Your task to perform on an android device: turn off javascript in the chrome app Image 0: 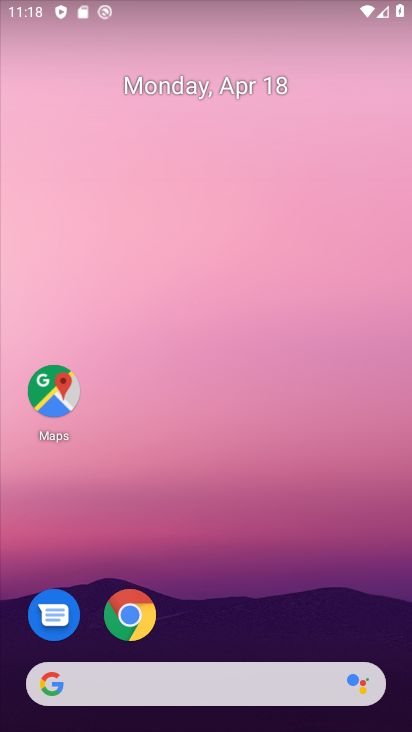
Step 0: click (138, 616)
Your task to perform on an android device: turn off javascript in the chrome app Image 1: 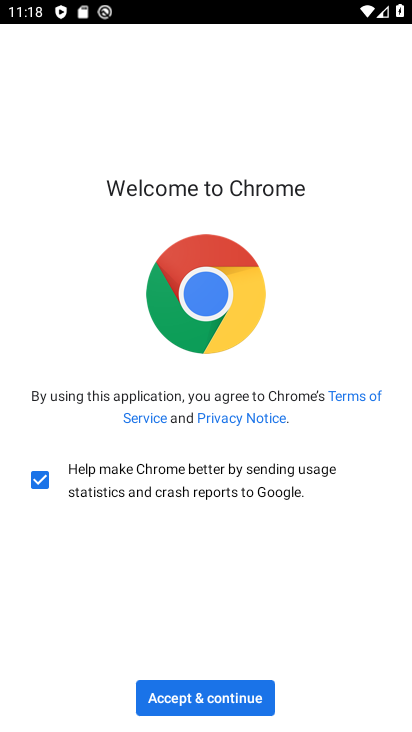
Step 1: click (193, 693)
Your task to perform on an android device: turn off javascript in the chrome app Image 2: 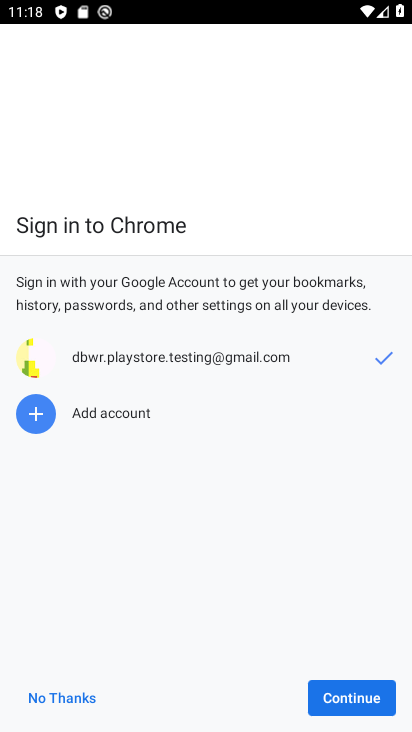
Step 2: click (367, 697)
Your task to perform on an android device: turn off javascript in the chrome app Image 3: 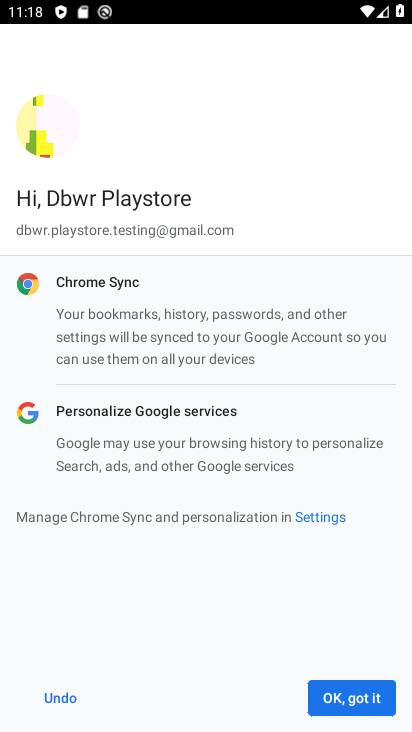
Step 3: click (345, 698)
Your task to perform on an android device: turn off javascript in the chrome app Image 4: 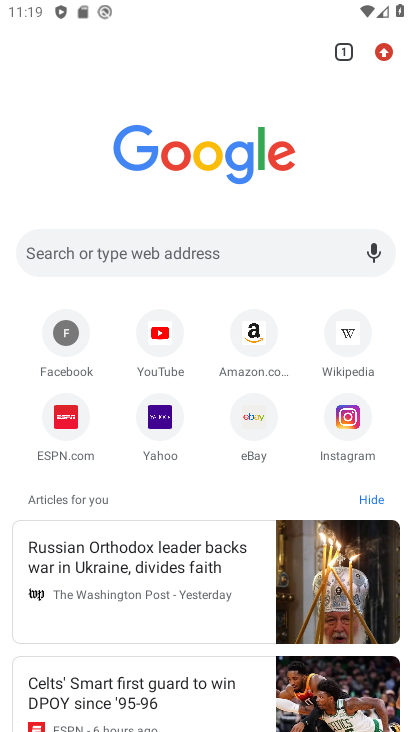
Step 4: click (383, 49)
Your task to perform on an android device: turn off javascript in the chrome app Image 5: 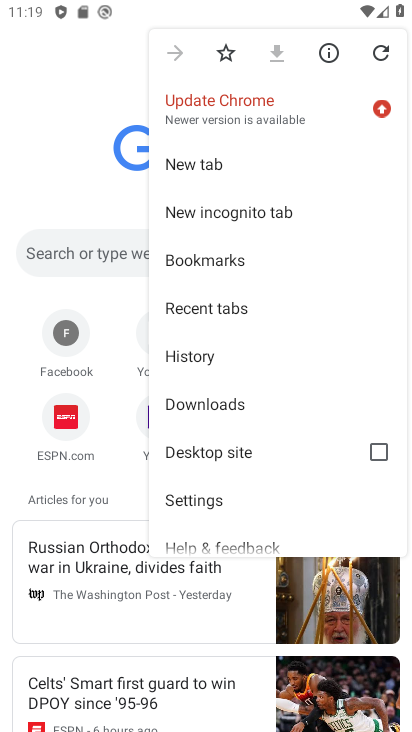
Step 5: click (194, 501)
Your task to perform on an android device: turn off javascript in the chrome app Image 6: 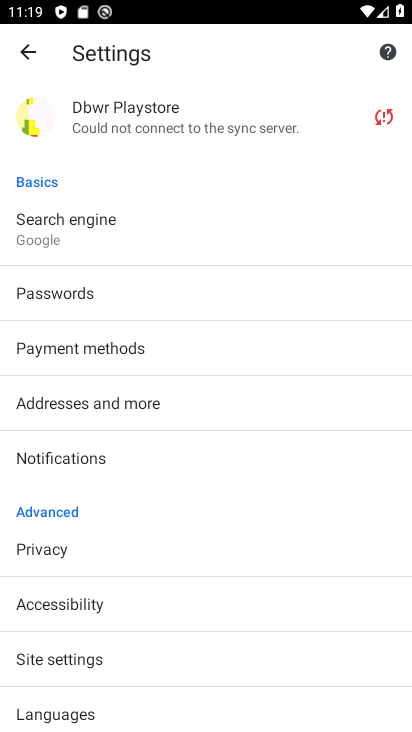
Step 6: drag from (142, 672) to (173, 270)
Your task to perform on an android device: turn off javascript in the chrome app Image 7: 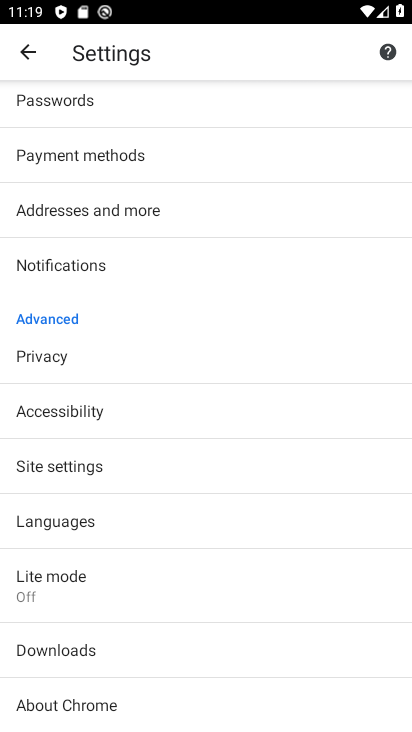
Step 7: click (88, 463)
Your task to perform on an android device: turn off javascript in the chrome app Image 8: 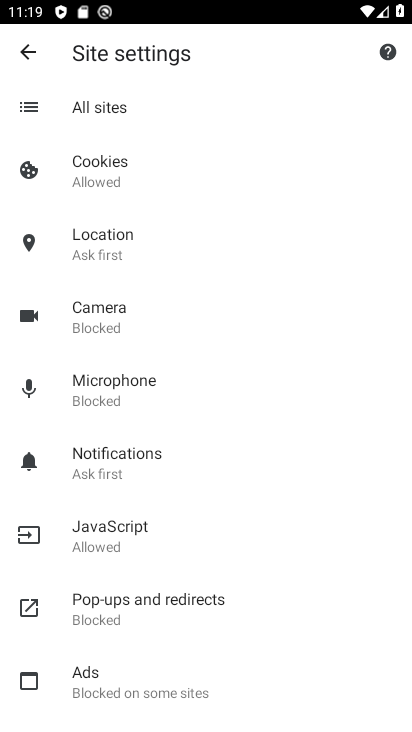
Step 8: click (94, 531)
Your task to perform on an android device: turn off javascript in the chrome app Image 9: 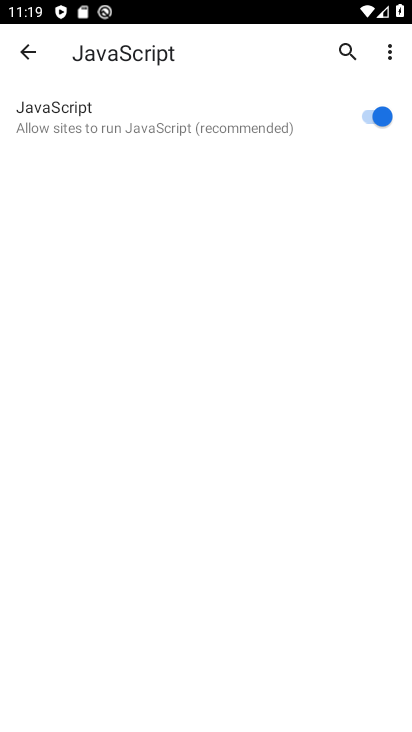
Step 9: click (367, 118)
Your task to perform on an android device: turn off javascript in the chrome app Image 10: 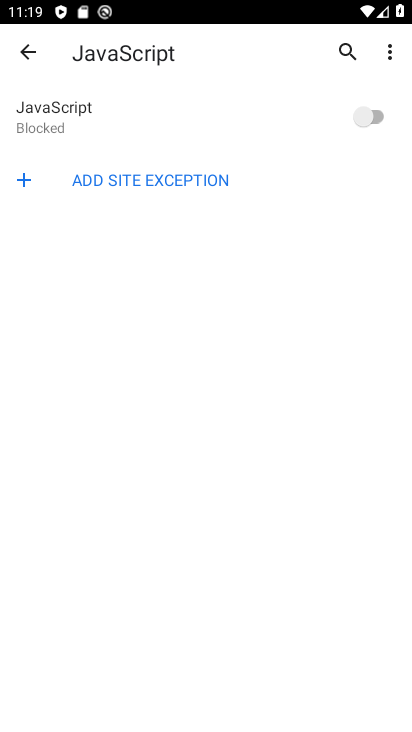
Step 10: task complete